Your task to perform on an android device: check google app version Image 0: 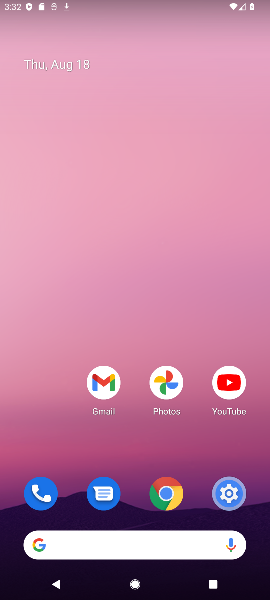
Step 0: drag from (123, 471) to (118, 51)
Your task to perform on an android device: check google app version Image 1: 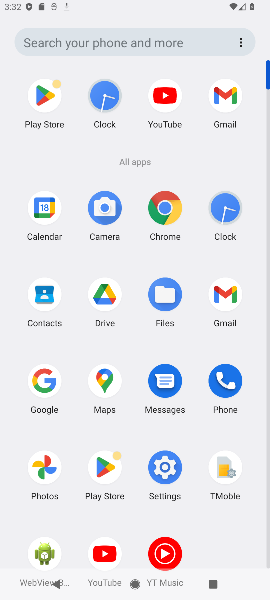
Step 1: click (52, 372)
Your task to perform on an android device: check google app version Image 2: 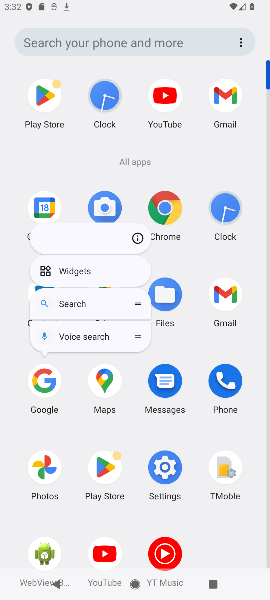
Step 2: click (137, 235)
Your task to perform on an android device: check google app version Image 3: 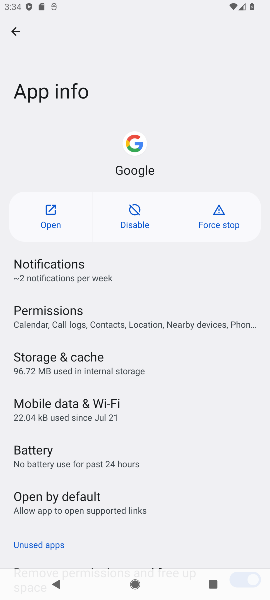
Step 3: task complete